Your task to perform on an android device: turn off sleep mode Image 0: 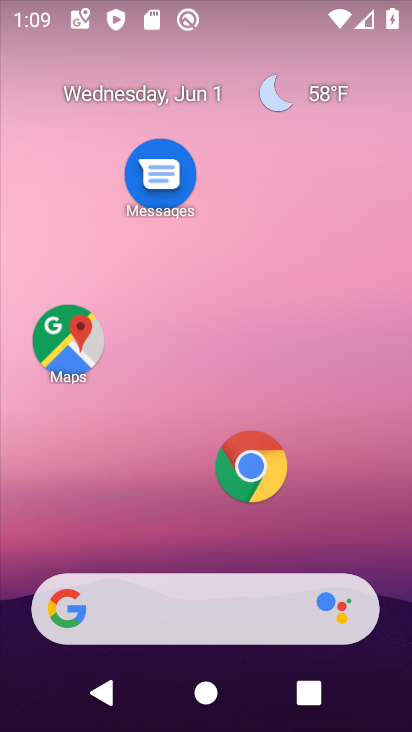
Step 0: drag from (237, 27) to (201, 581)
Your task to perform on an android device: turn off sleep mode Image 1: 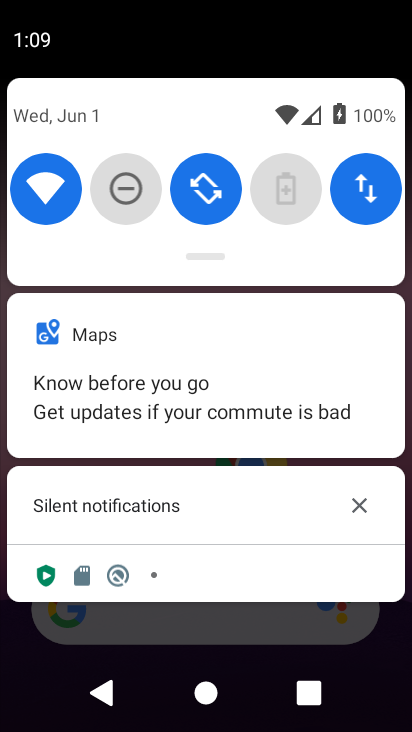
Step 1: drag from (207, 257) to (260, 653)
Your task to perform on an android device: turn off sleep mode Image 2: 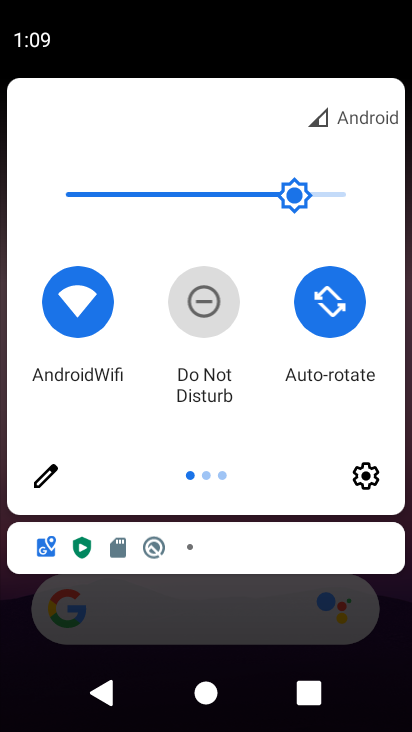
Step 2: click (34, 473)
Your task to perform on an android device: turn off sleep mode Image 3: 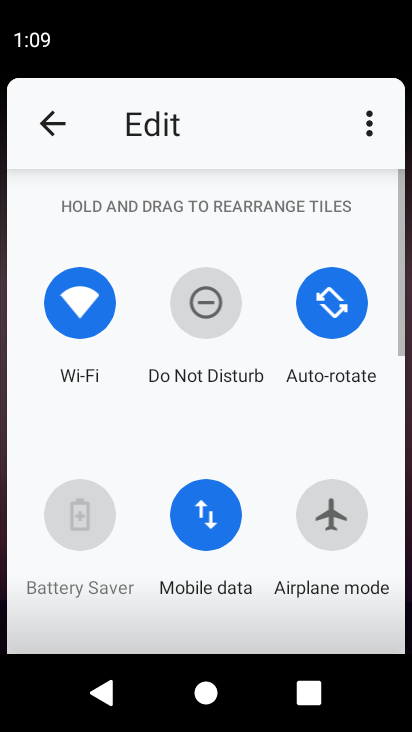
Step 3: task complete